Your task to perform on an android device: refresh tabs in the chrome app Image 0: 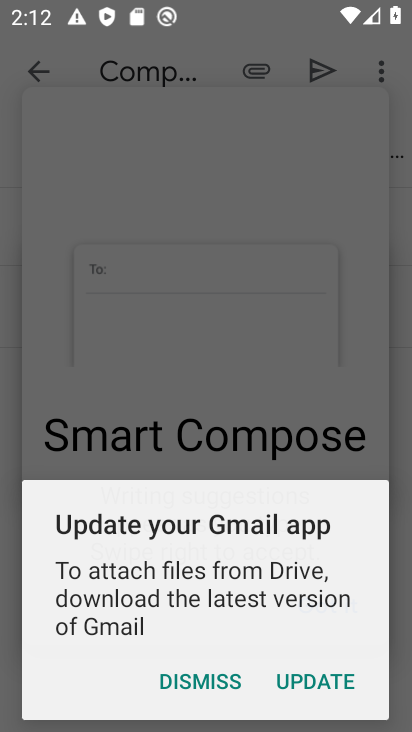
Step 0: press back button
Your task to perform on an android device: refresh tabs in the chrome app Image 1: 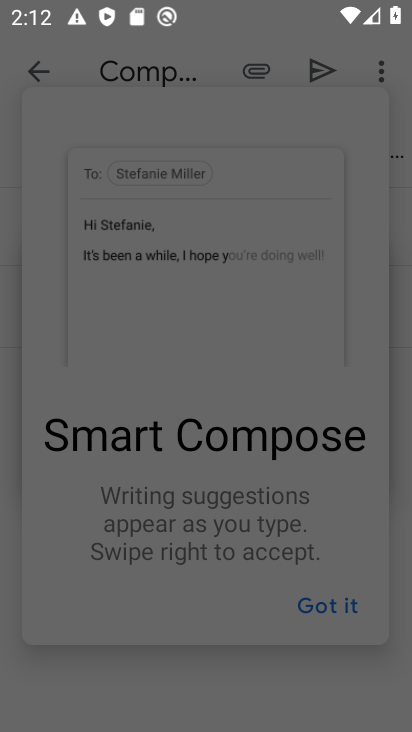
Step 1: press back button
Your task to perform on an android device: refresh tabs in the chrome app Image 2: 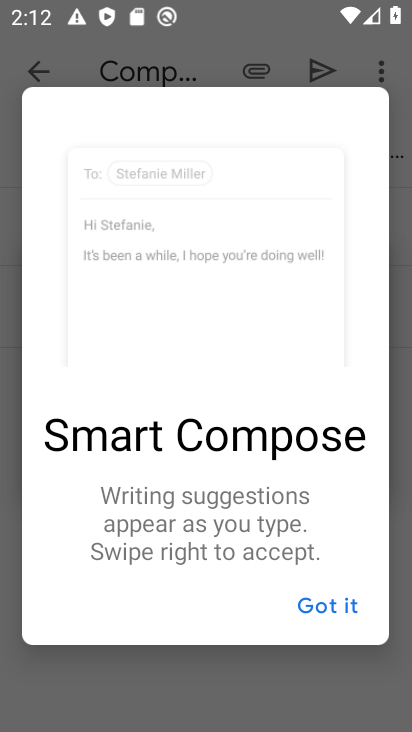
Step 2: press home button
Your task to perform on an android device: refresh tabs in the chrome app Image 3: 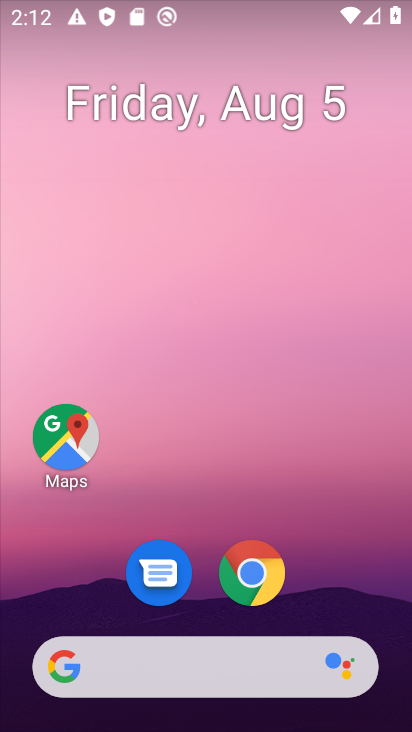
Step 3: click (245, 594)
Your task to perform on an android device: refresh tabs in the chrome app Image 4: 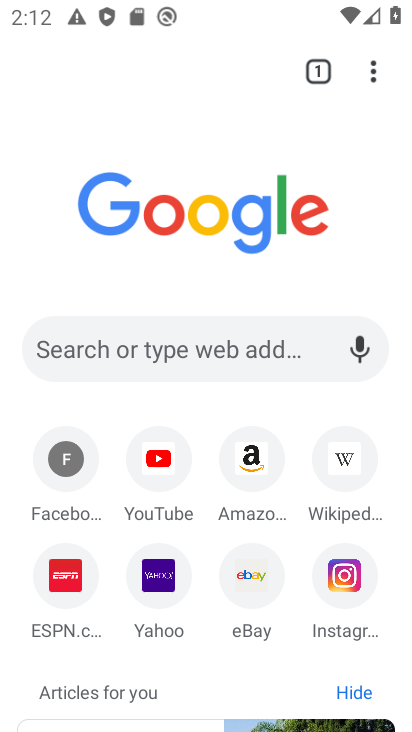
Step 4: click (370, 84)
Your task to perform on an android device: refresh tabs in the chrome app Image 5: 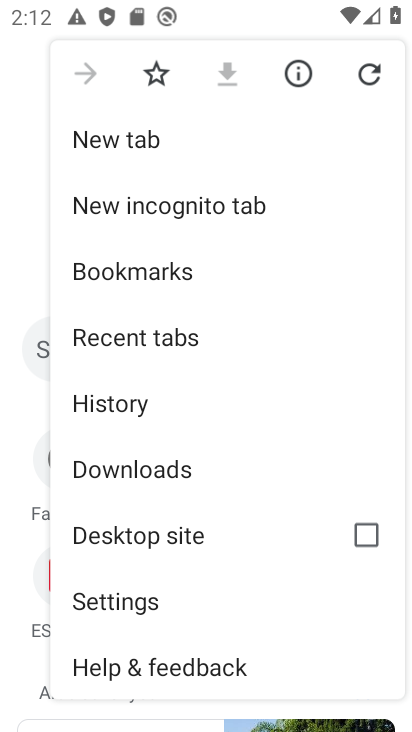
Step 5: click (370, 78)
Your task to perform on an android device: refresh tabs in the chrome app Image 6: 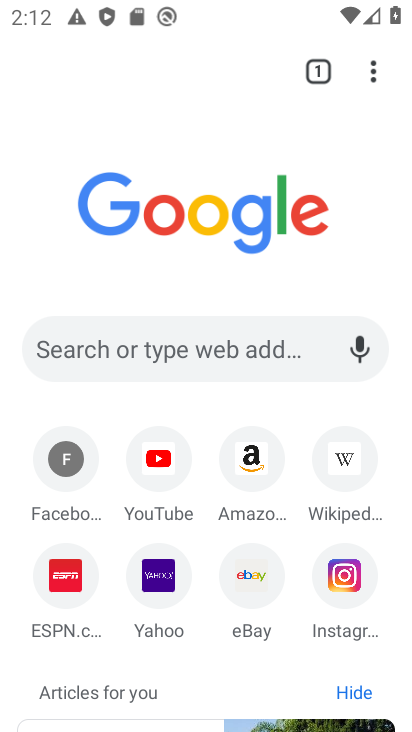
Step 6: task complete